Your task to perform on an android device: Is it going to rain this weekend? Image 0: 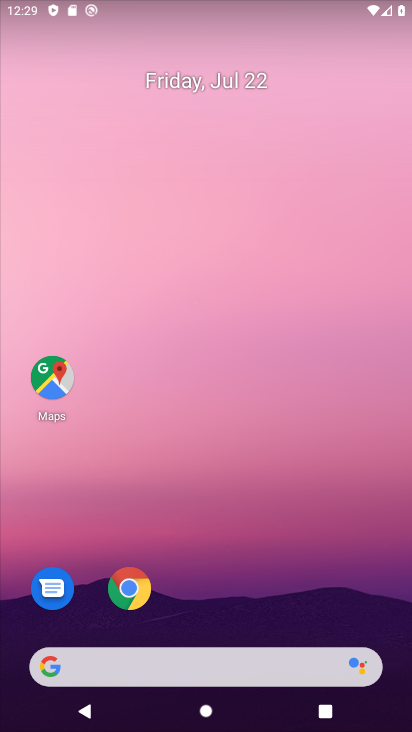
Step 0: drag from (223, 622) to (139, 116)
Your task to perform on an android device: Is it going to rain this weekend? Image 1: 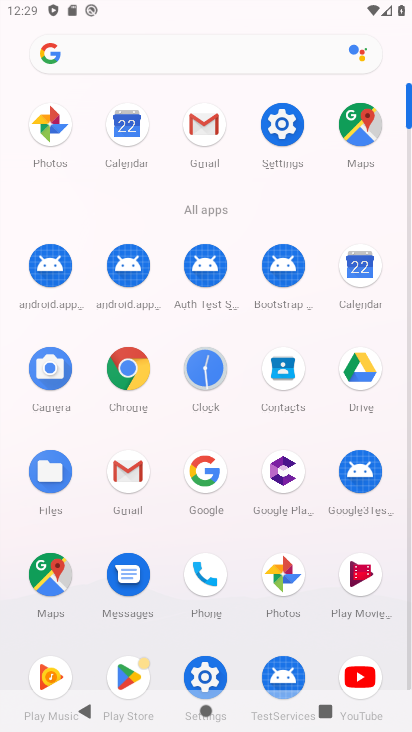
Step 1: click (206, 476)
Your task to perform on an android device: Is it going to rain this weekend? Image 2: 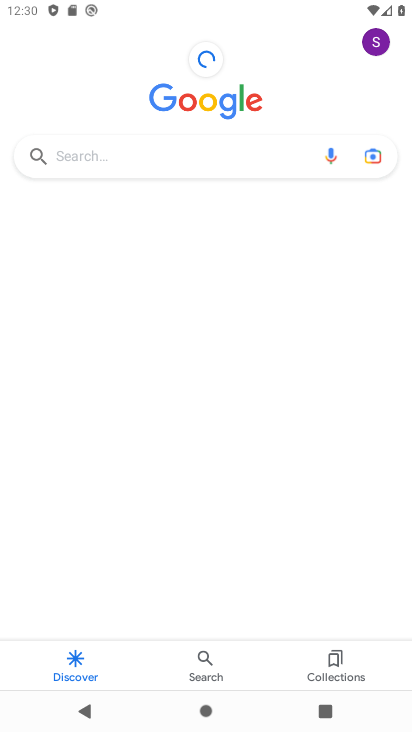
Step 2: click (153, 149)
Your task to perform on an android device: Is it going to rain this weekend? Image 3: 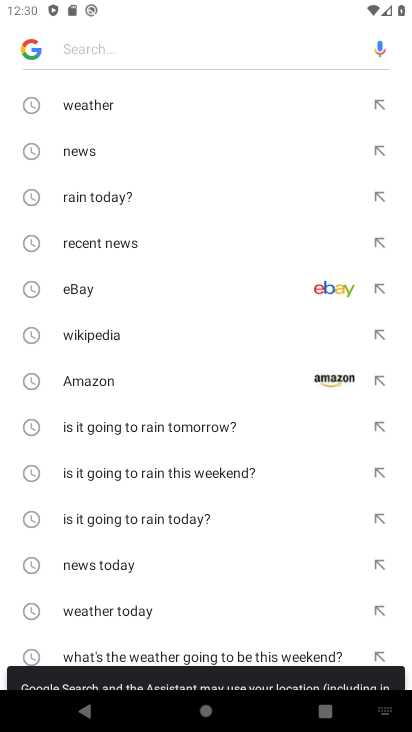
Step 3: click (106, 114)
Your task to perform on an android device: Is it going to rain this weekend? Image 4: 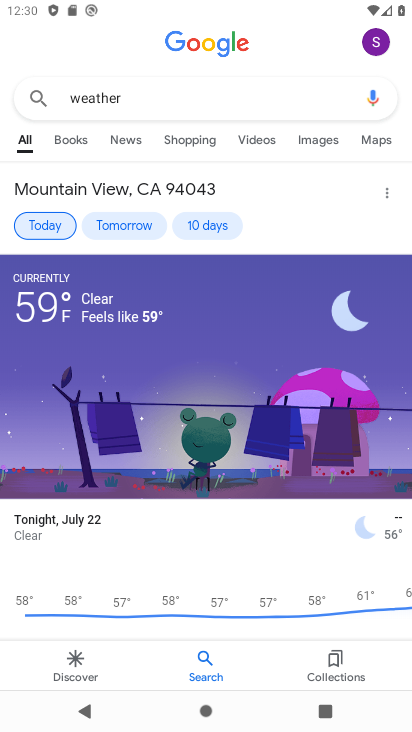
Step 4: click (187, 227)
Your task to perform on an android device: Is it going to rain this weekend? Image 5: 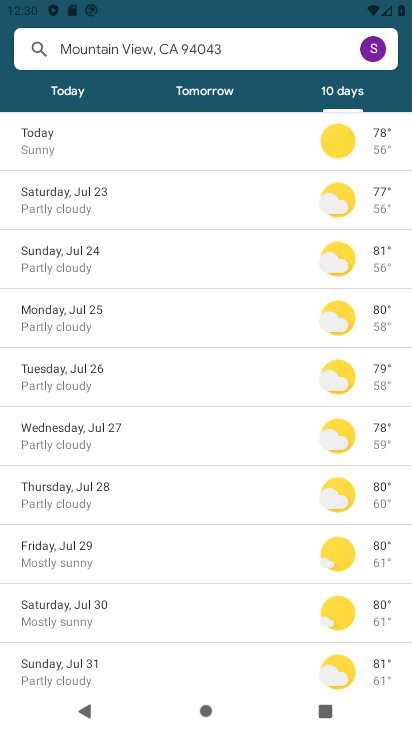
Step 5: task complete